Your task to perform on an android device: Open the stopwatch Image 0: 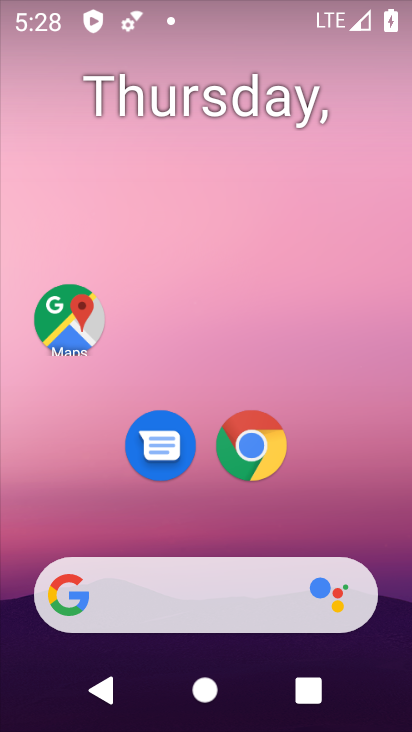
Step 0: drag from (313, 512) to (352, 112)
Your task to perform on an android device: Open the stopwatch Image 1: 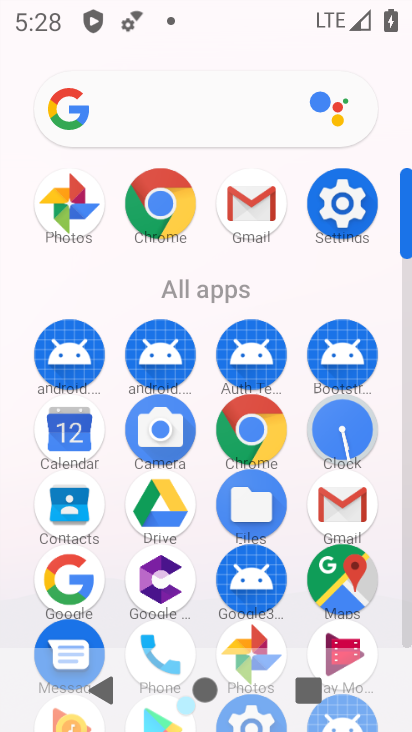
Step 1: click (340, 427)
Your task to perform on an android device: Open the stopwatch Image 2: 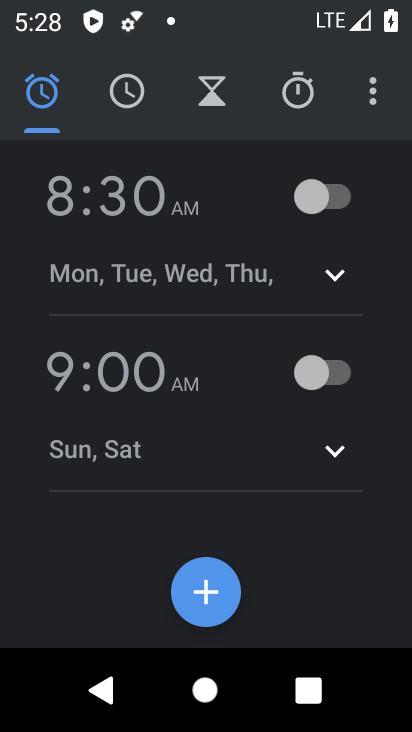
Step 2: click (303, 90)
Your task to perform on an android device: Open the stopwatch Image 3: 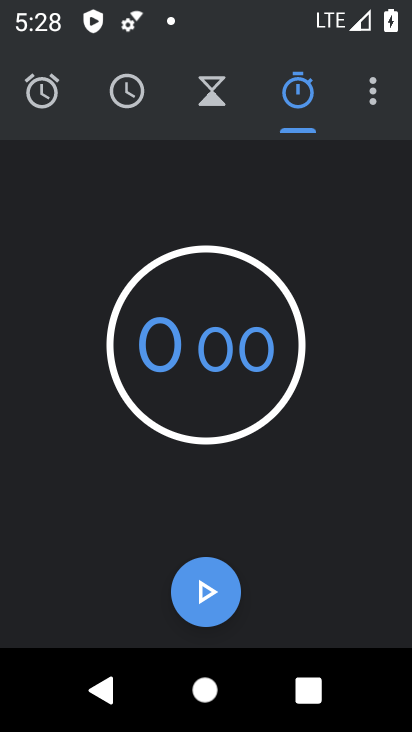
Step 3: task complete